Your task to perform on an android device: show emergency info Image 0: 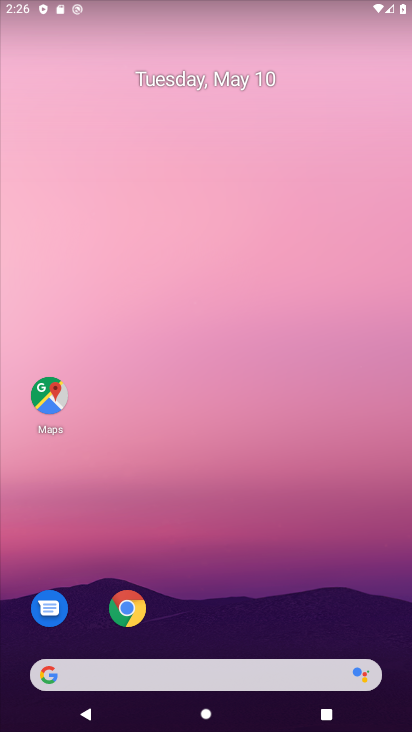
Step 0: drag from (393, 659) to (313, 215)
Your task to perform on an android device: show emergency info Image 1: 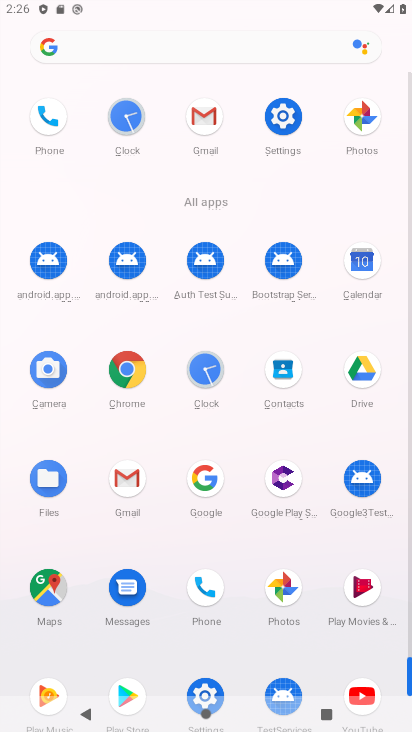
Step 1: click (410, 653)
Your task to perform on an android device: show emergency info Image 2: 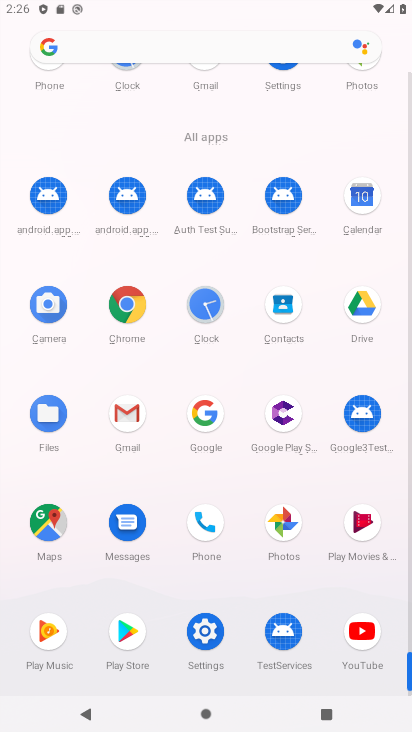
Step 2: click (202, 631)
Your task to perform on an android device: show emergency info Image 3: 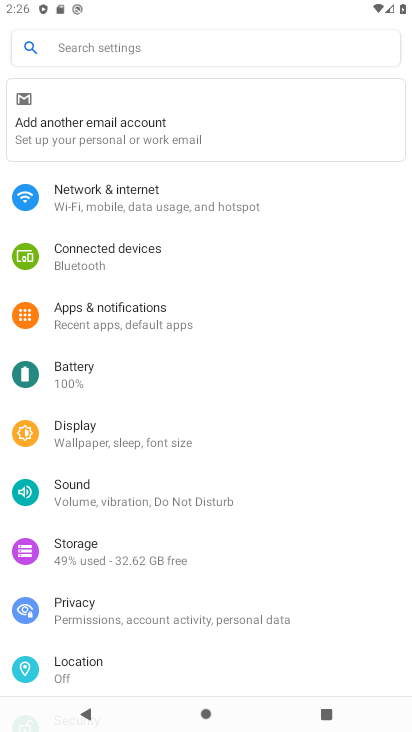
Step 3: drag from (286, 648) to (299, 191)
Your task to perform on an android device: show emergency info Image 4: 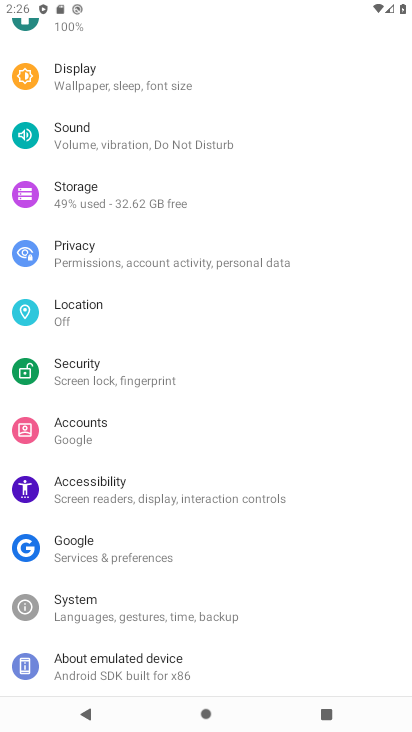
Step 4: click (85, 659)
Your task to perform on an android device: show emergency info Image 5: 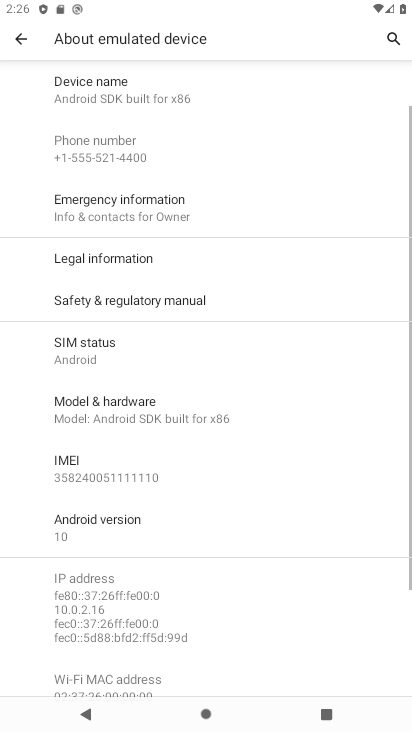
Step 5: click (99, 197)
Your task to perform on an android device: show emergency info Image 6: 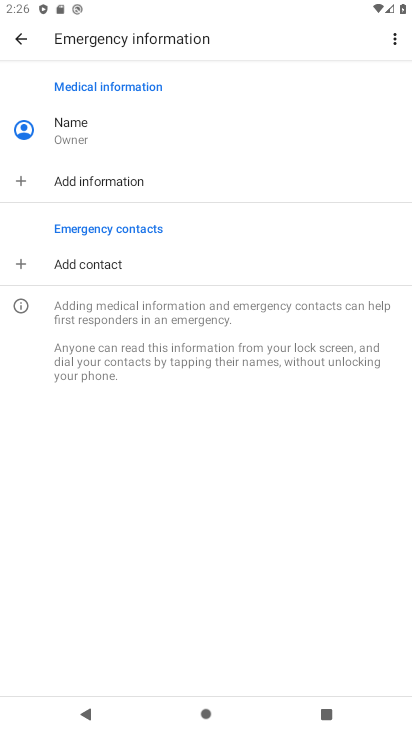
Step 6: task complete